Your task to perform on an android device: turn off smart reply in the gmail app Image 0: 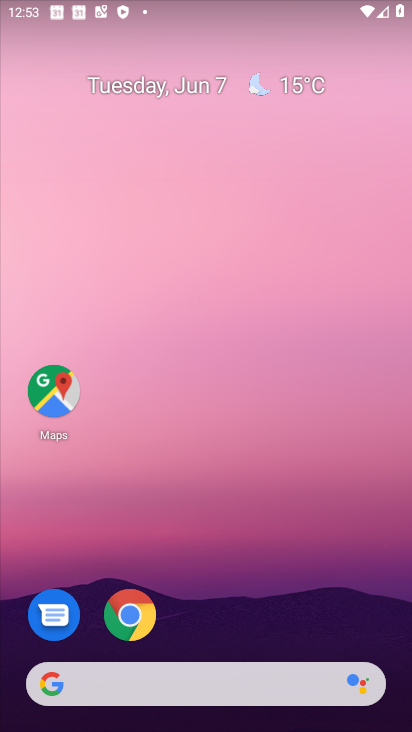
Step 0: drag from (229, 648) to (82, 35)
Your task to perform on an android device: turn off smart reply in the gmail app Image 1: 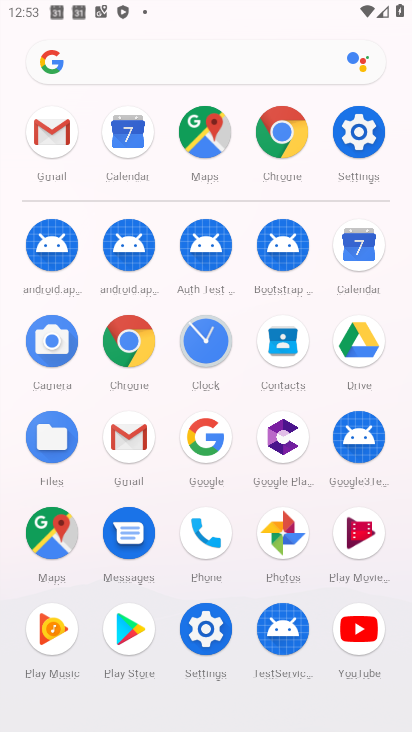
Step 1: click (57, 130)
Your task to perform on an android device: turn off smart reply in the gmail app Image 2: 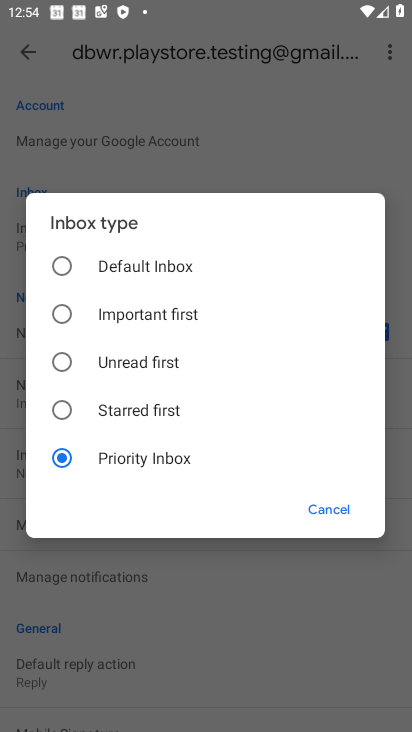
Step 2: click (337, 513)
Your task to perform on an android device: turn off smart reply in the gmail app Image 3: 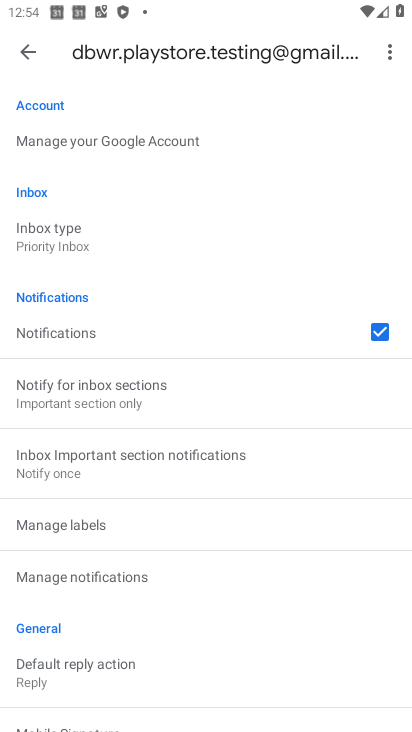
Step 3: task complete